Your task to perform on an android device: When is my next meeting? Image 0: 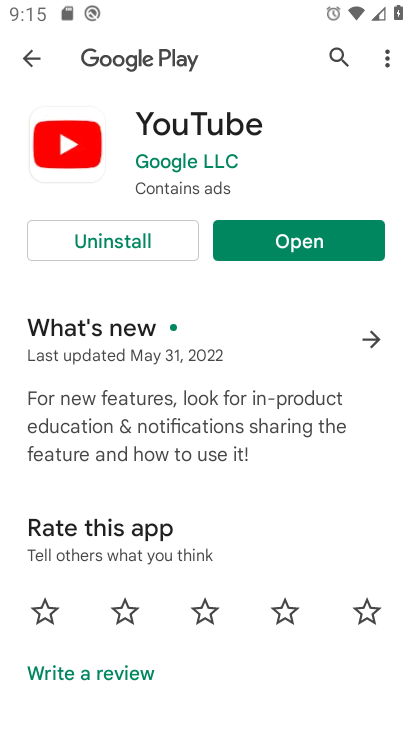
Step 0: press home button
Your task to perform on an android device: When is my next meeting? Image 1: 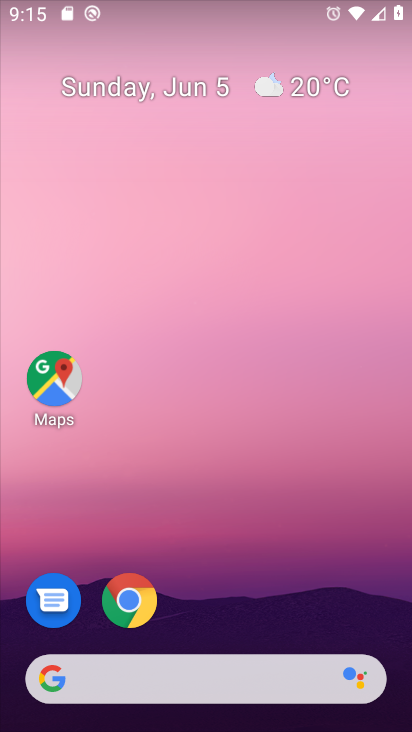
Step 1: drag from (207, 559) to (172, 3)
Your task to perform on an android device: When is my next meeting? Image 2: 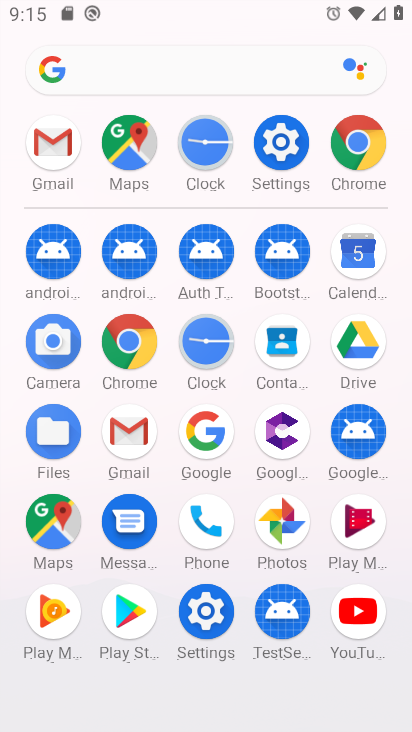
Step 2: click (356, 263)
Your task to perform on an android device: When is my next meeting? Image 3: 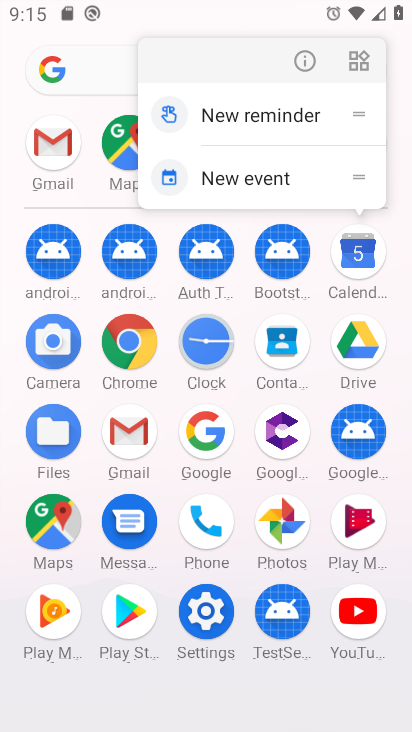
Step 3: click (358, 248)
Your task to perform on an android device: When is my next meeting? Image 4: 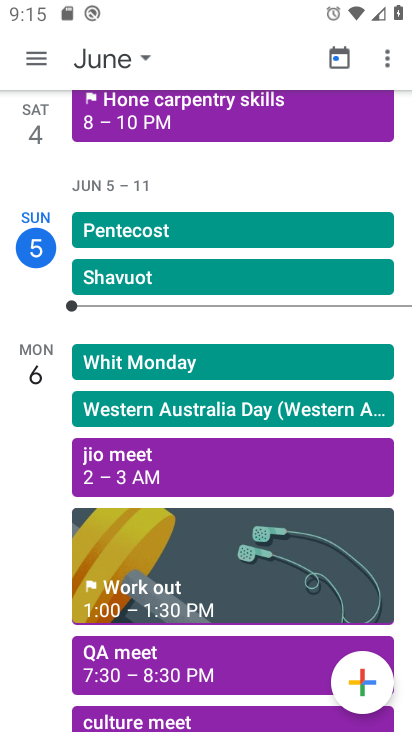
Step 4: task complete